Your task to perform on an android device: see creations saved in the google photos Image 0: 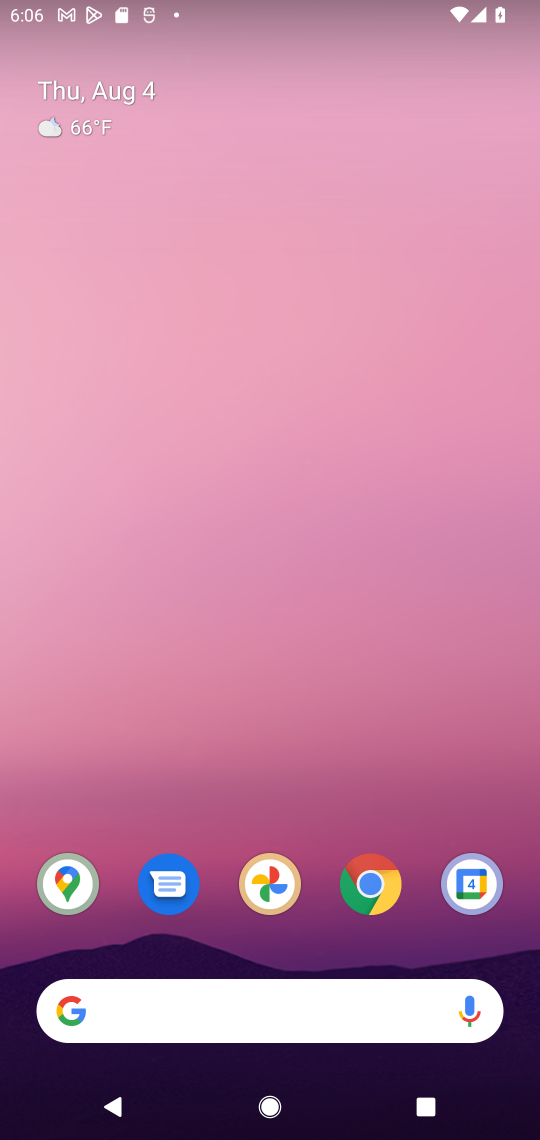
Step 0: click (242, 903)
Your task to perform on an android device: see creations saved in the google photos Image 1: 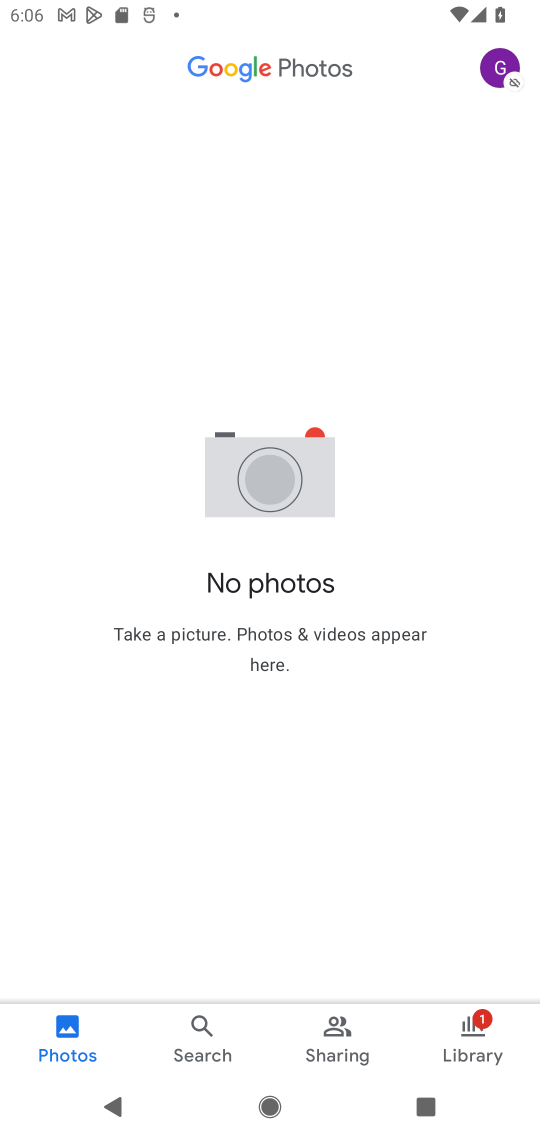
Step 1: task complete